Your task to perform on an android device: turn on the 24-hour format for clock Image 0: 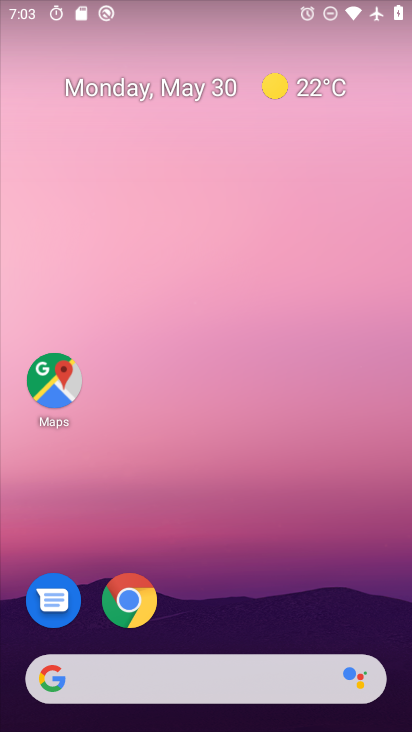
Step 0: drag from (278, 622) to (267, 183)
Your task to perform on an android device: turn on the 24-hour format for clock Image 1: 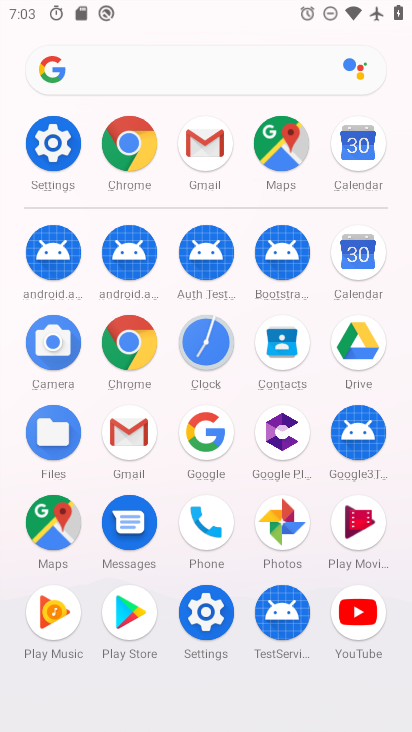
Step 1: click (52, 152)
Your task to perform on an android device: turn on the 24-hour format for clock Image 2: 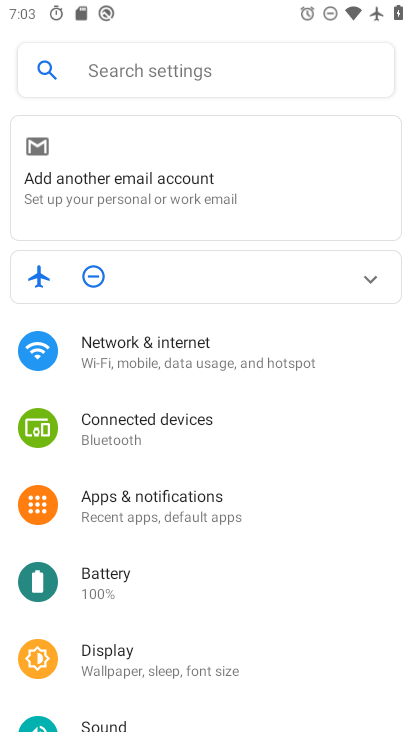
Step 2: drag from (307, 557) to (258, 173)
Your task to perform on an android device: turn on the 24-hour format for clock Image 3: 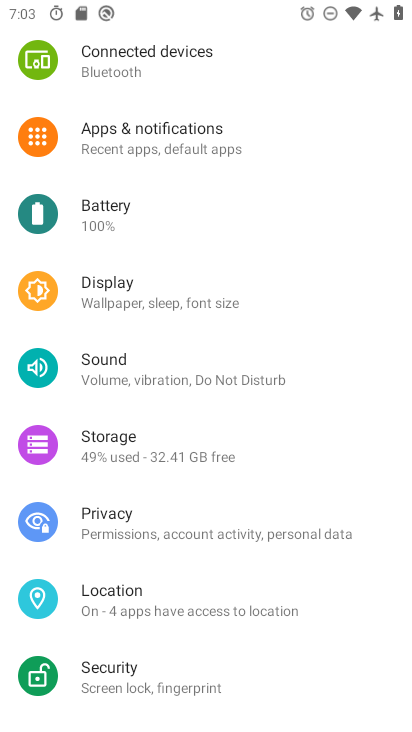
Step 3: drag from (310, 615) to (237, 171)
Your task to perform on an android device: turn on the 24-hour format for clock Image 4: 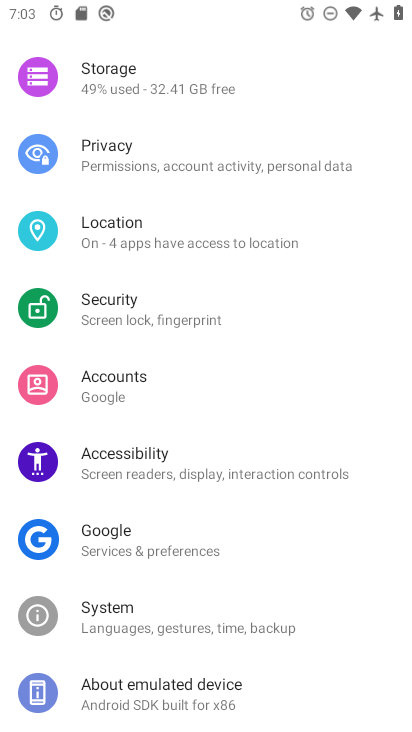
Step 4: click (119, 633)
Your task to perform on an android device: turn on the 24-hour format for clock Image 5: 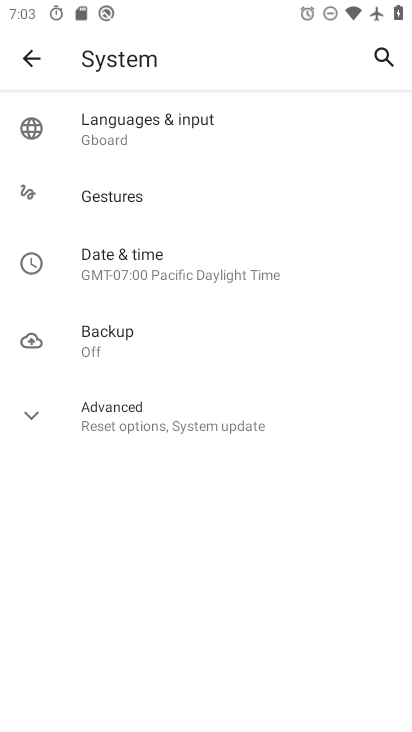
Step 5: click (122, 268)
Your task to perform on an android device: turn on the 24-hour format for clock Image 6: 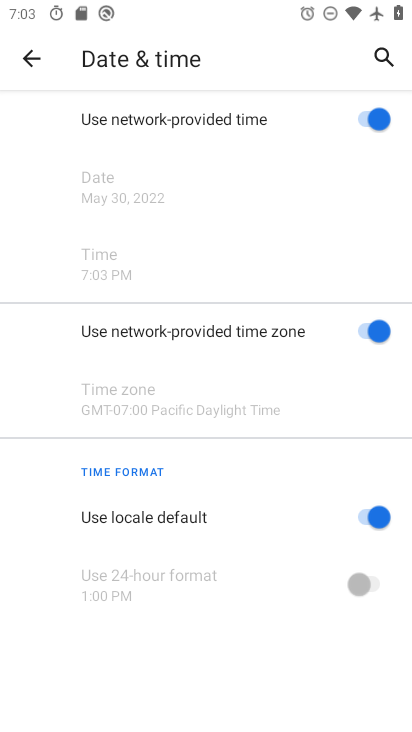
Step 6: click (358, 578)
Your task to perform on an android device: turn on the 24-hour format for clock Image 7: 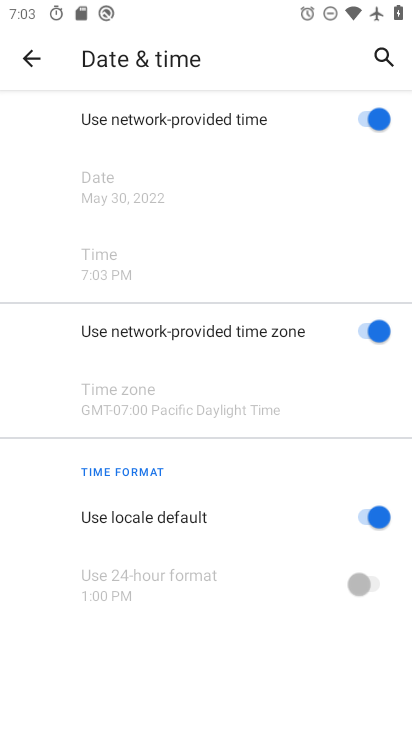
Step 7: click (382, 513)
Your task to perform on an android device: turn on the 24-hour format for clock Image 8: 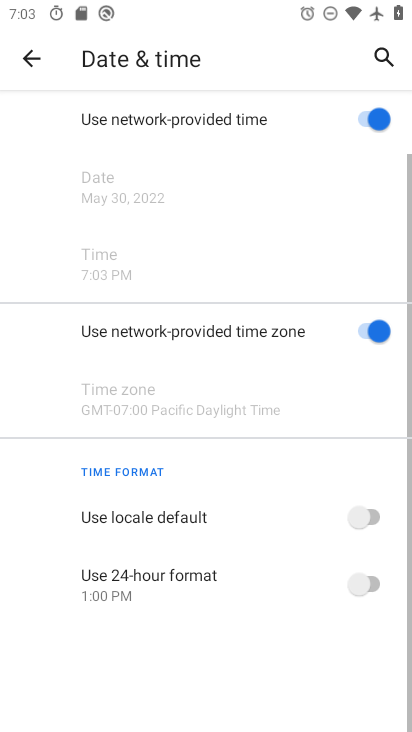
Step 8: task complete